Your task to perform on an android device: Search for hotels in Philadelphia Image 0: 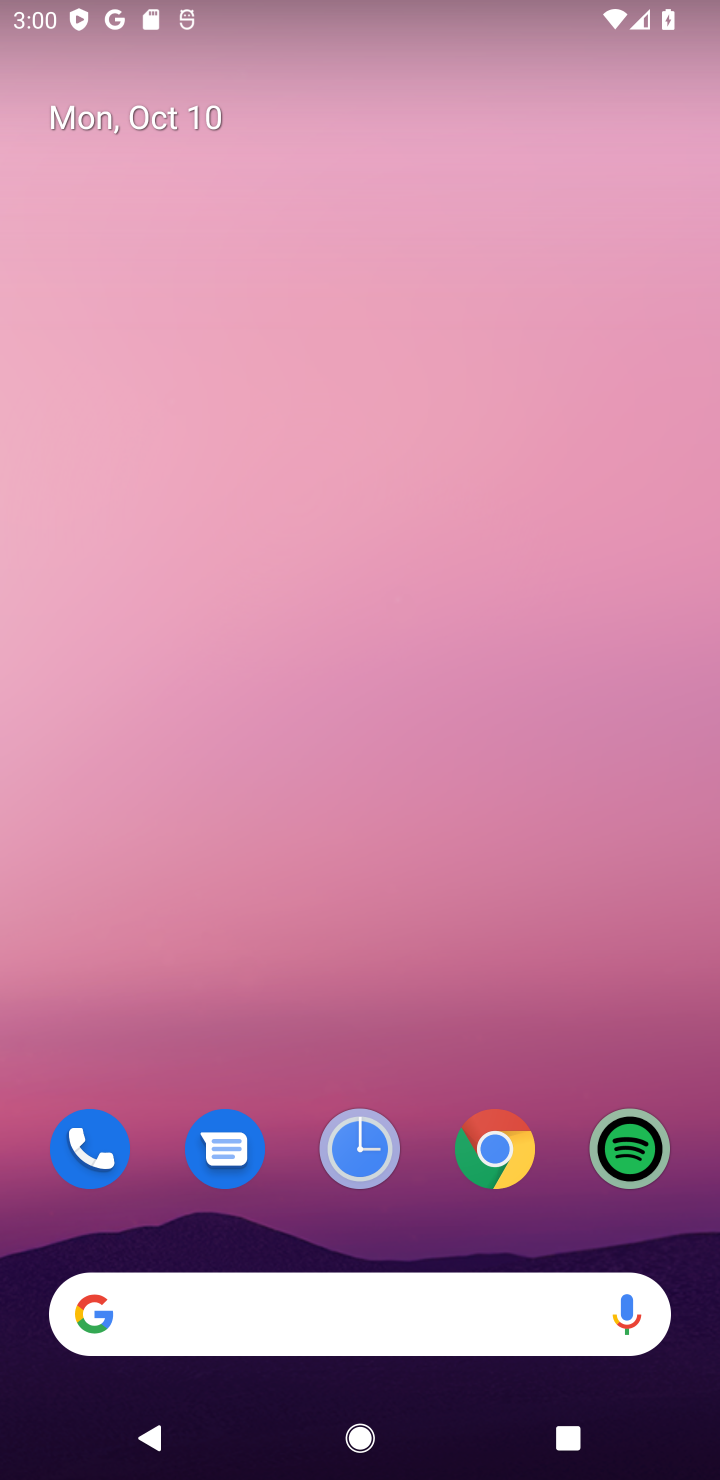
Step 0: click (270, 1328)
Your task to perform on an android device: Search for hotels in Philadelphia Image 1: 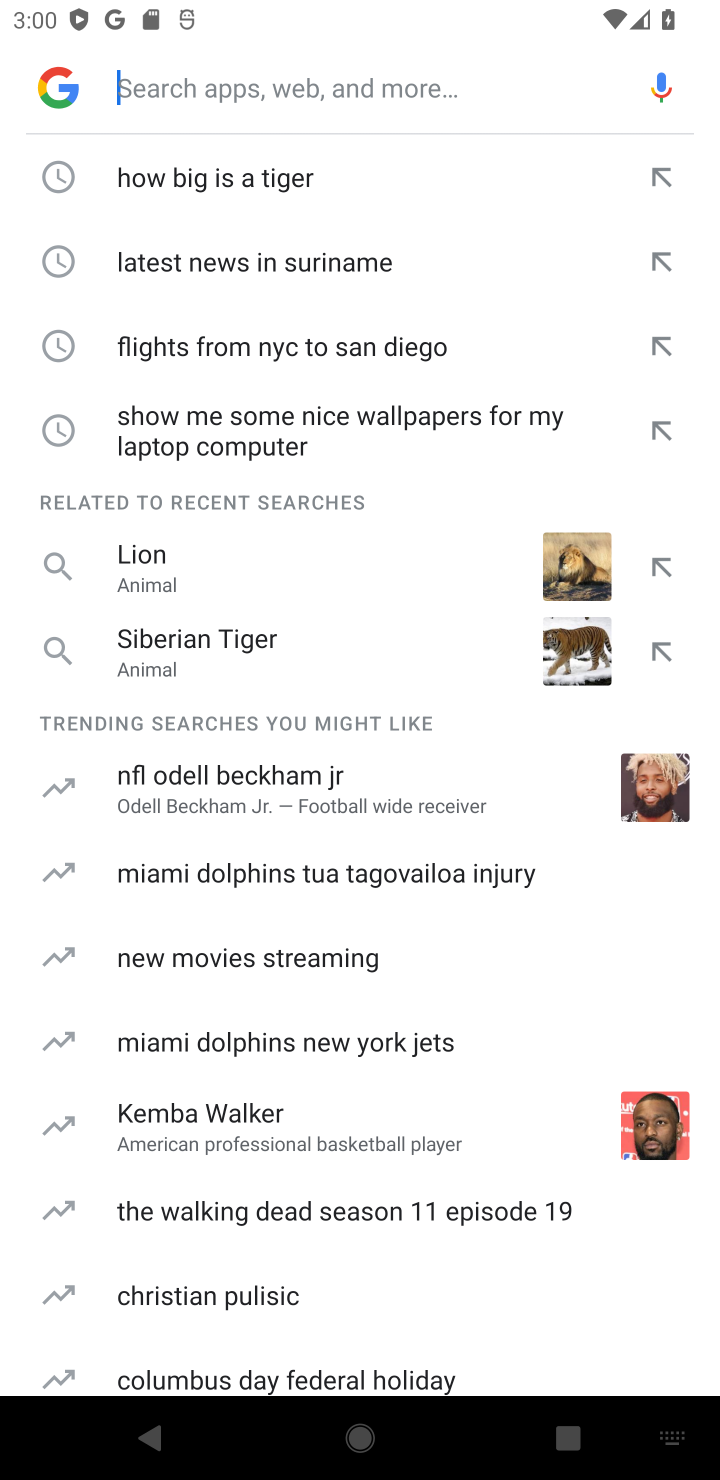
Step 1: type "hotels in Philadelphia"
Your task to perform on an android device: Search for hotels in Philadelphia Image 2: 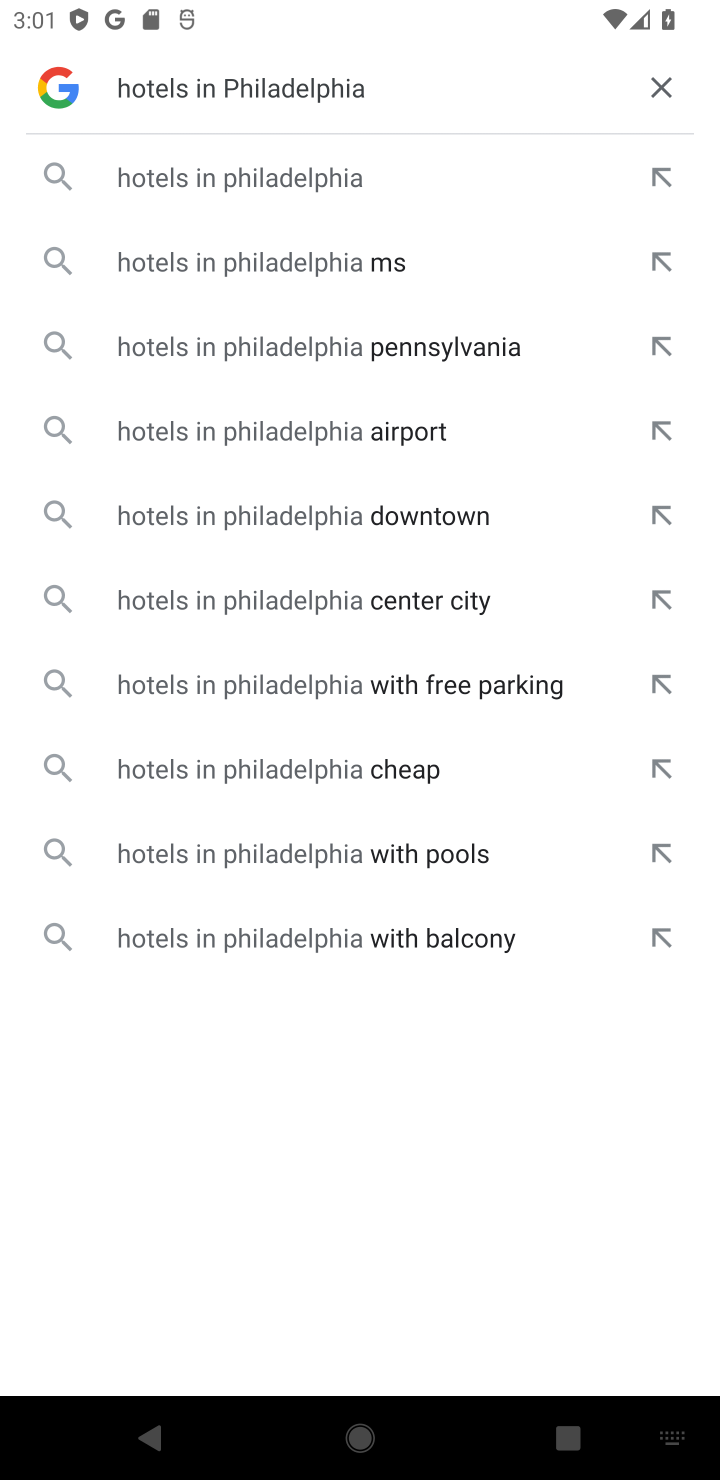
Step 2: click (211, 192)
Your task to perform on an android device: Search for hotels in Philadelphia Image 3: 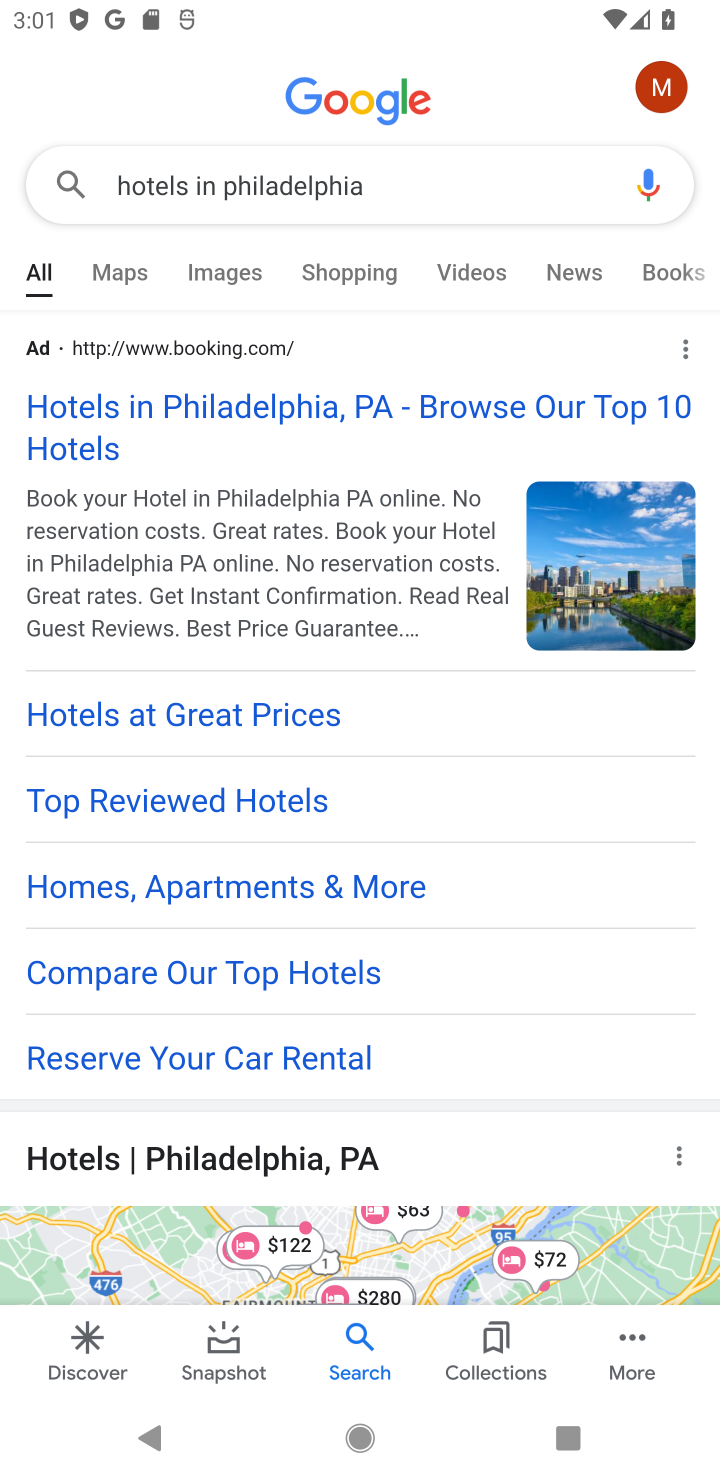
Step 3: click (173, 417)
Your task to perform on an android device: Search for hotels in Philadelphia Image 4: 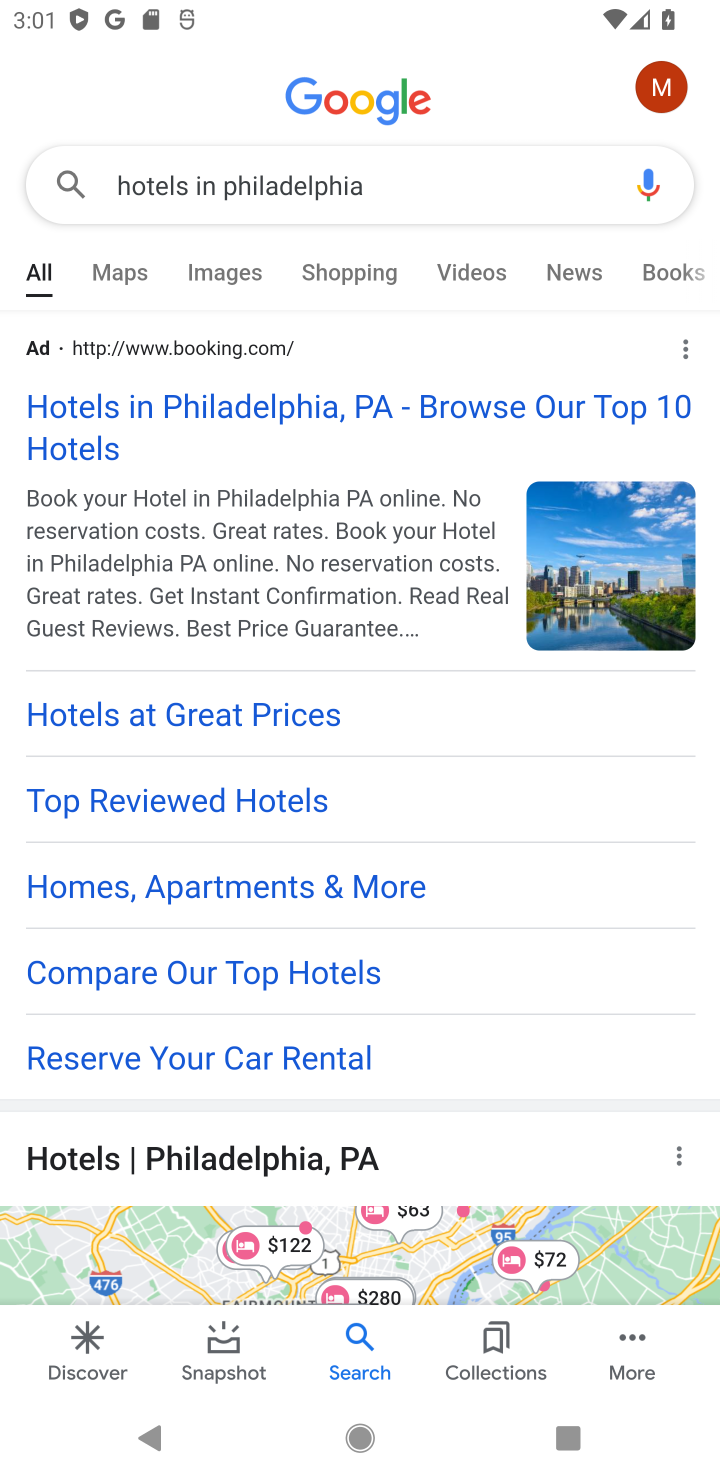
Step 4: task complete